Your task to perform on an android device: Open Google Chrome and click the shortcut for Amazon.com Image 0: 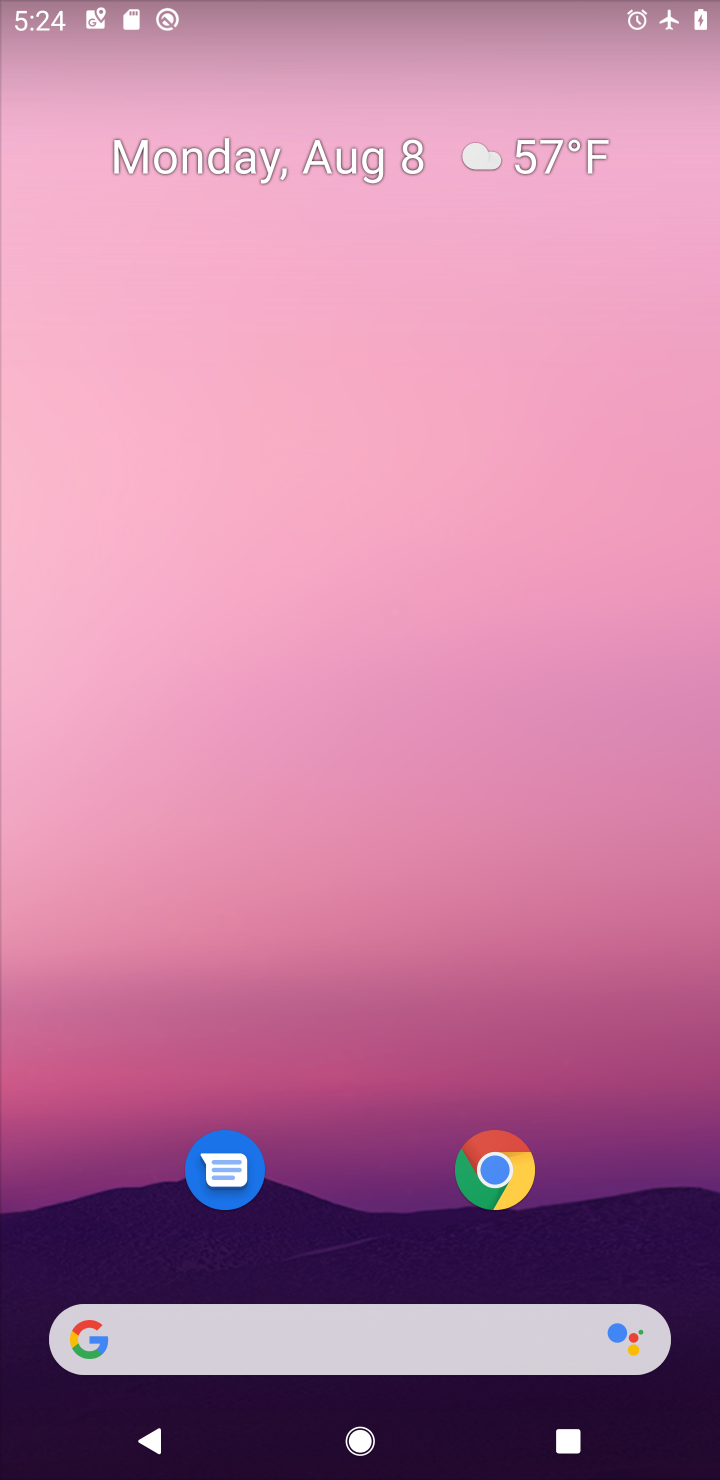
Step 0: click (502, 1149)
Your task to perform on an android device: Open Google Chrome and click the shortcut for Amazon.com Image 1: 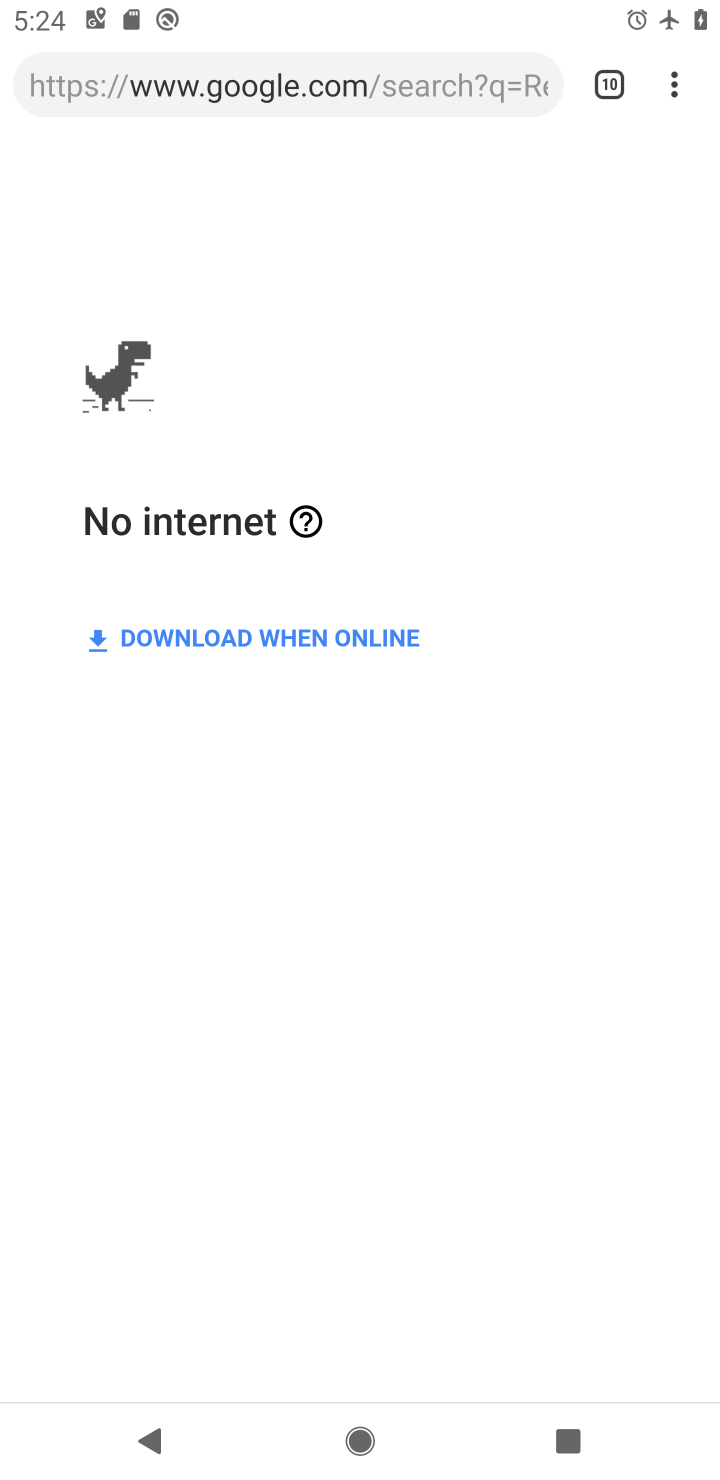
Step 1: click (598, 79)
Your task to perform on an android device: Open Google Chrome and click the shortcut for Amazon.com Image 2: 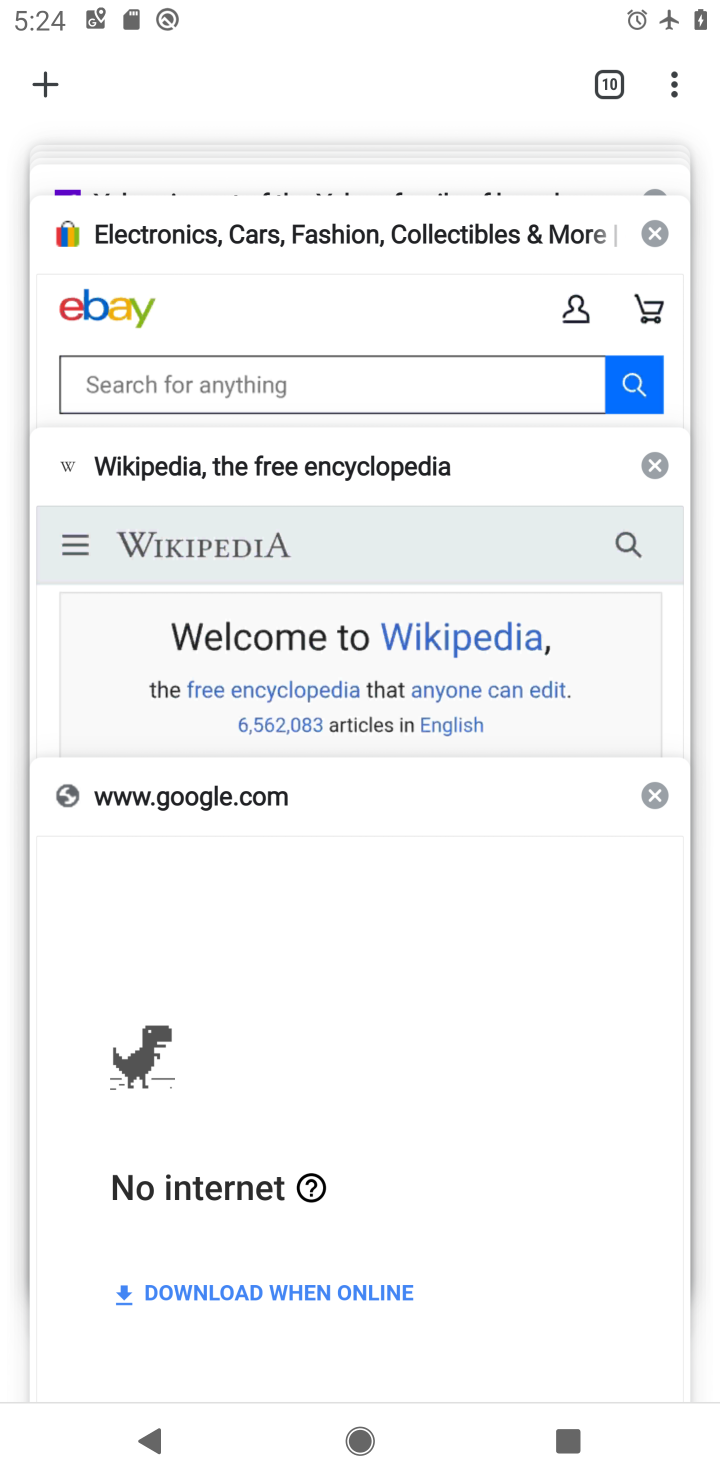
Step 2: click (57, 79)
Your task to perform on an android device: Open Google Chrome and click the shortcut for Amazon.com Image 3: 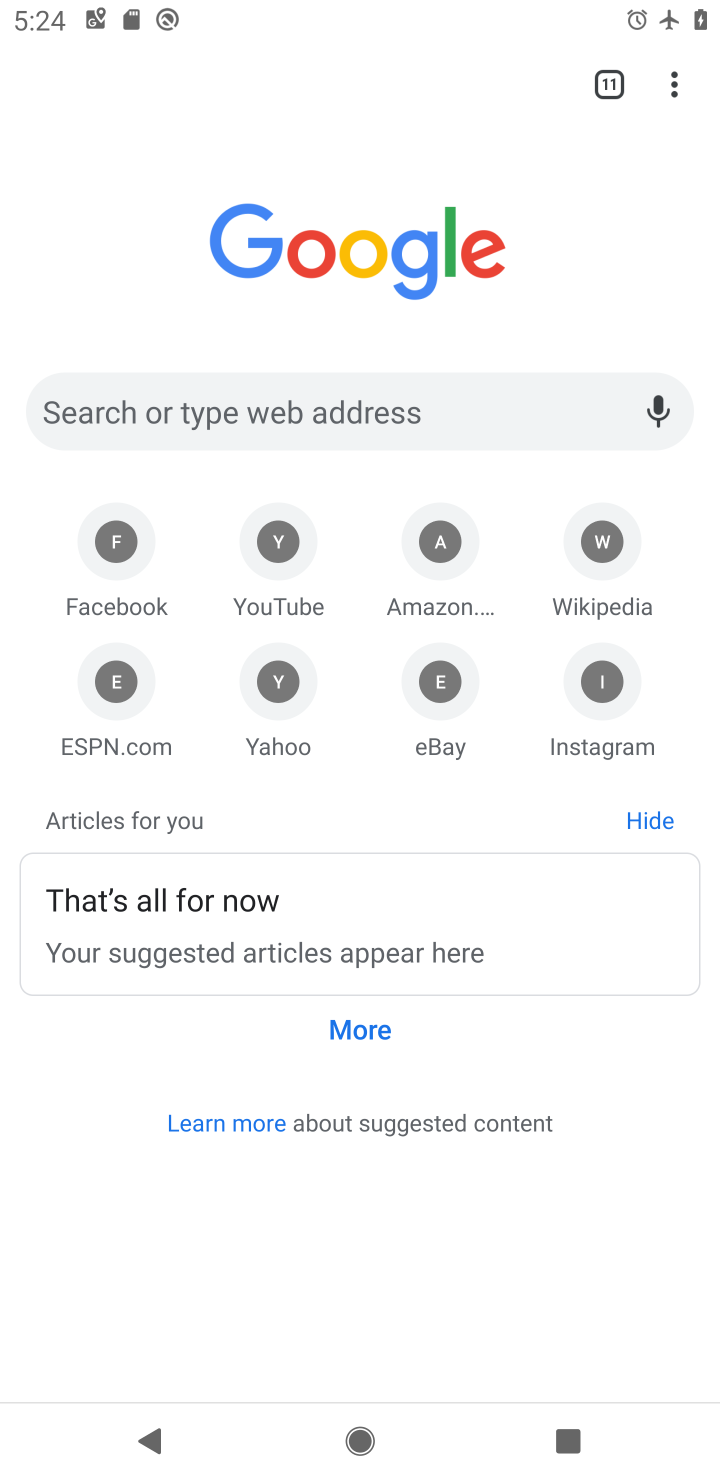
Step 3: click (438, 576)
Your task to perform on an android device: Open Google Chrome and click the shortcut for Amazon.com Image 4: 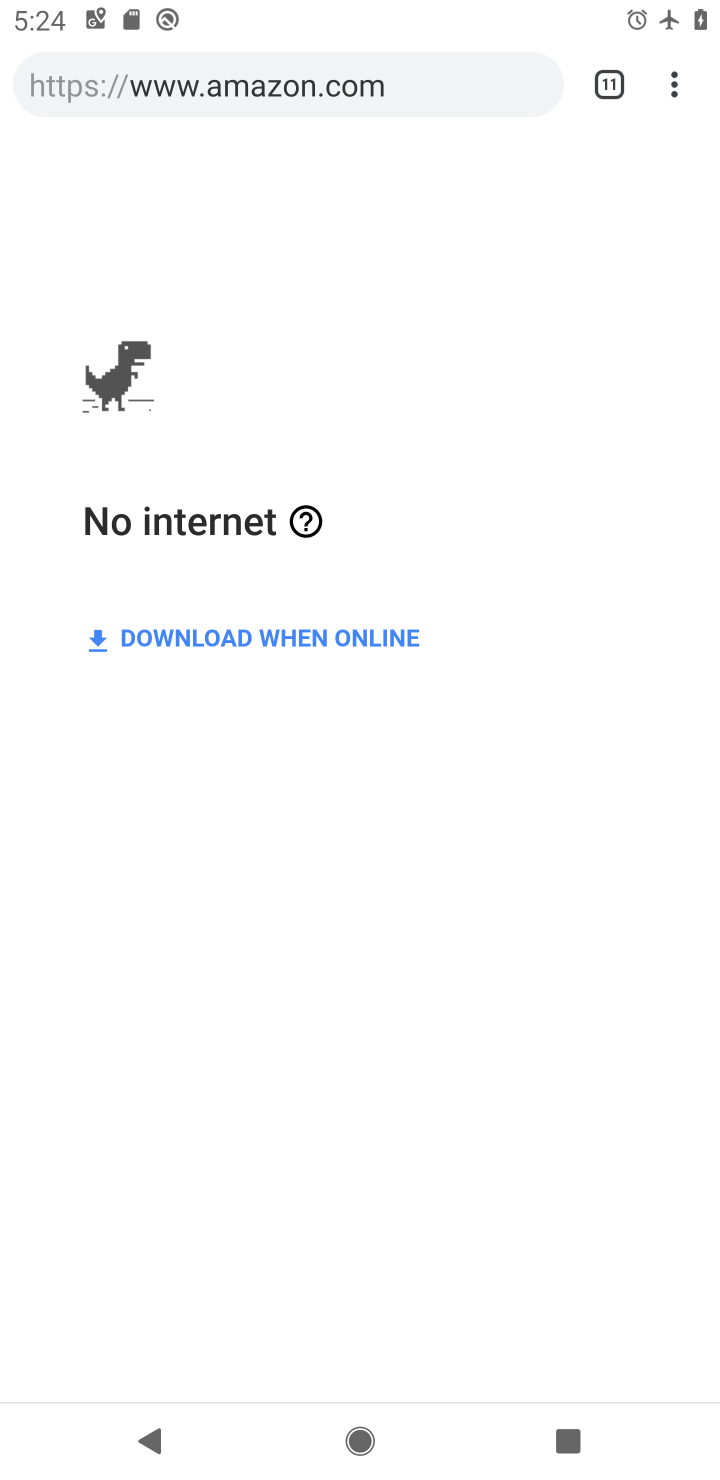
Step 4: task complete